Your task to perform on an android device: install app "LinkedIn" Image 0: 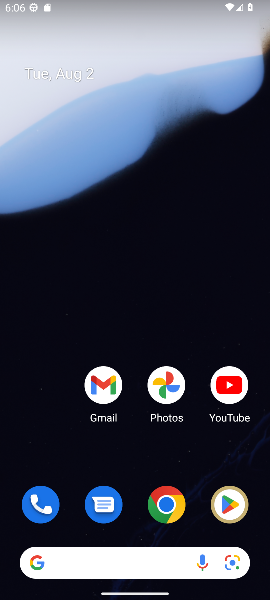
Step 0: click (227, 495)
Your task to perform on an android device: install app "LinkedIn" Image 1: 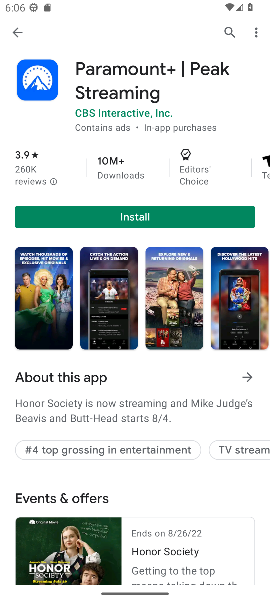
Step 1: click (223, 31)
Your task to perform on an android device: install app "LinkedIn" Image 2: 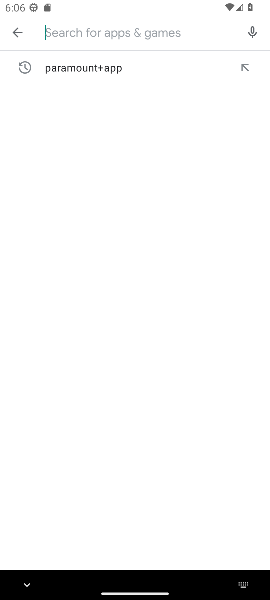
Step 2: type "linkedin"
Your task to perform on an android device: install app "LinkedIn" Image 3: 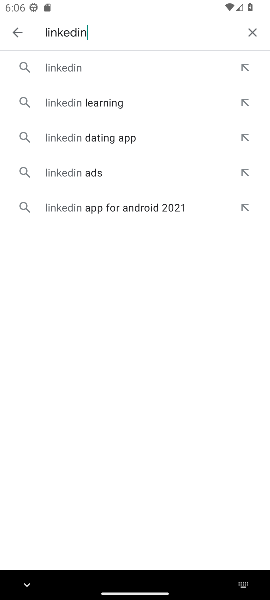
Step 3: click (66, 71)
Your task to perform on an android device: install app "LinkedIn" Image 4: 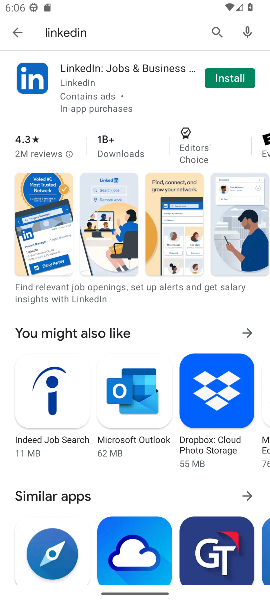
Step 4: click (233, 71)
Your task to perform on an android device: install app "LinkedIn" Image 5: 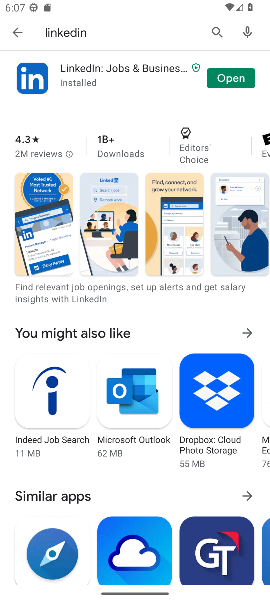
Step 5: task complete